Your task to perform on an android device: add a label to a message in the gmail app Image 0: 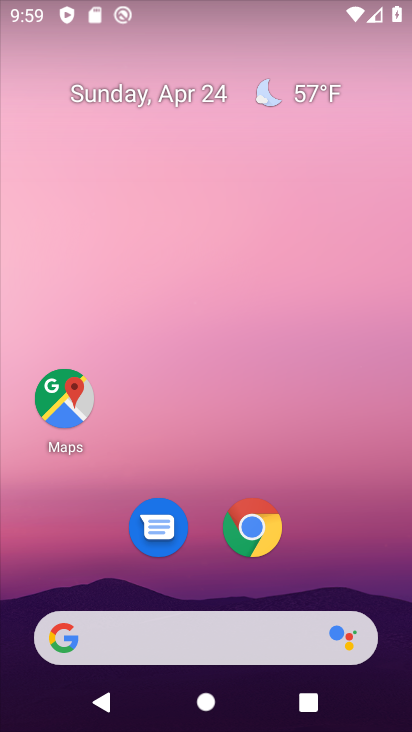
Step 0: click (124, 143)
Your task to perform on an android device: add a label to a message in the gmail app Image 1: 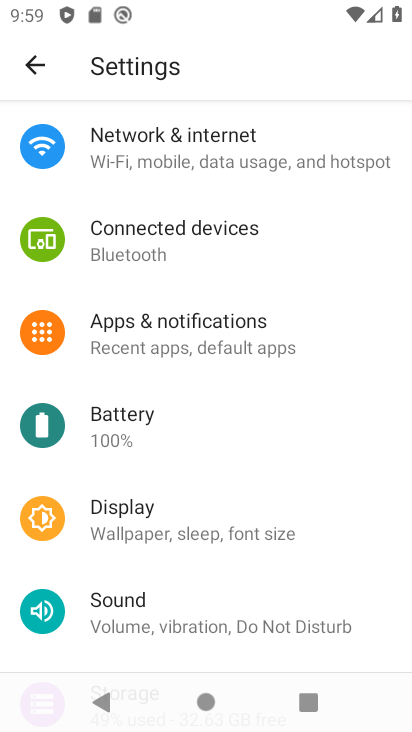
Step 1: click (28, 67)
Your task to perform on an android device: add a label to a message in the gmail app Image 2: 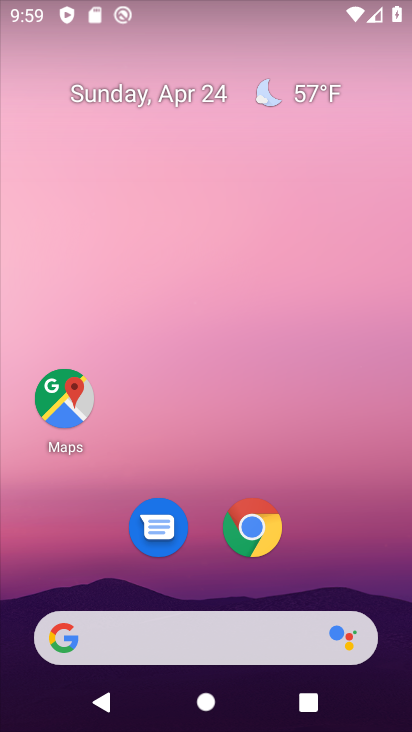
Step 2: drag from (219, 625) to (176, 96)
Your task to perform on an android device: add a label to a message in the gmail app Image 3: 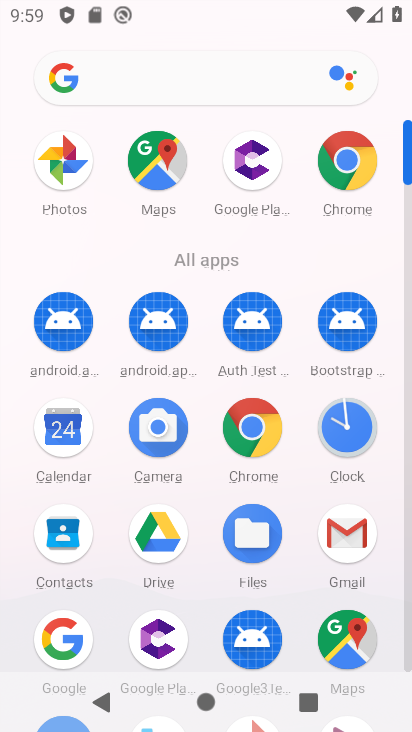
Step 3: click (341, 536)
Your task to perform on an android device: add a label to a message in the gmail app Image 4: 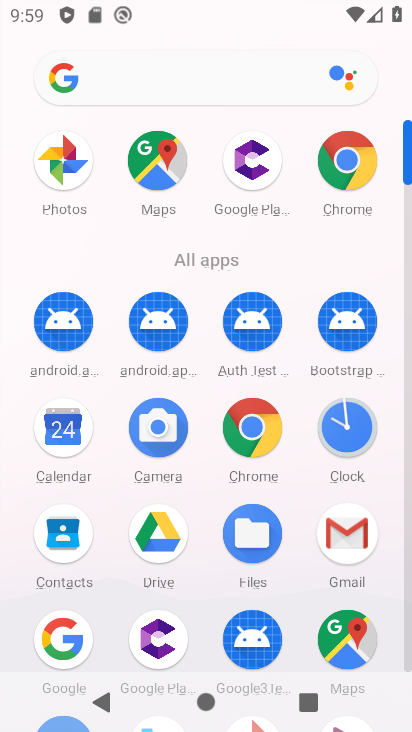
Step 4: click (341, 536)
Your task to perform on an android device: add a label to a message in the gmail app Image 5: 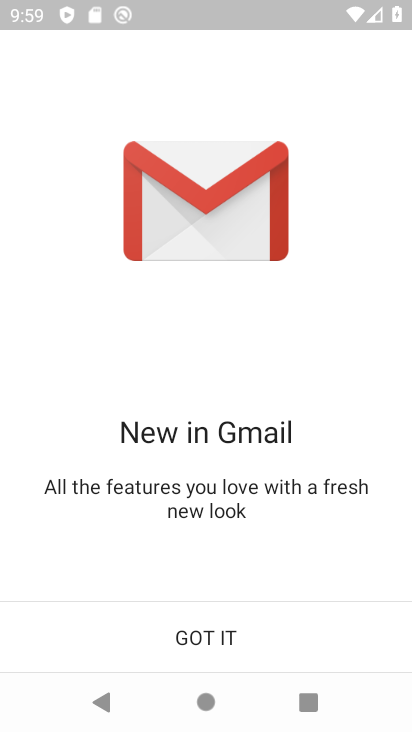
Step 5: click (212, 635)
Your task to perform on an android device: add a label to a message in the gmail app Image 6: 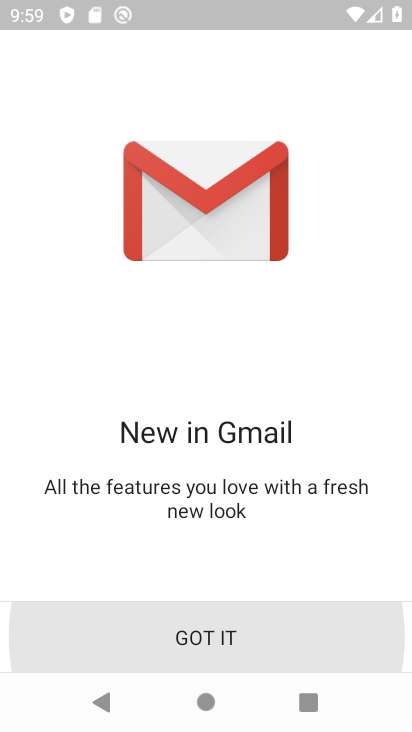
Step 6: click (215, 638)
Your task to perform on an android device: add a label to a message in the gmail app Image 7: 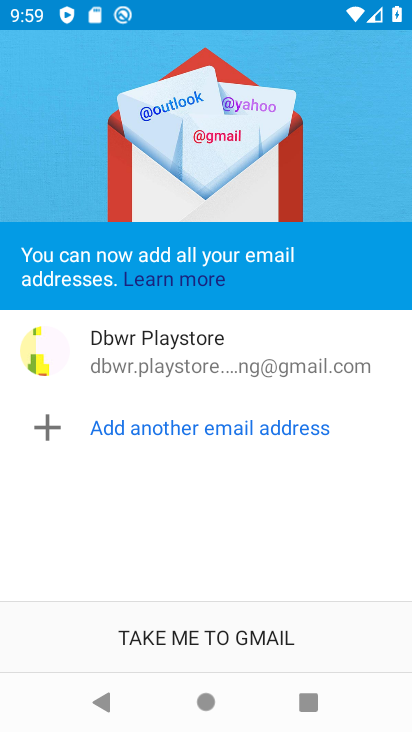
Step 7: click (204, 629)
Your task to perform on an android device: add a label to a message in the gmail app Image 8: 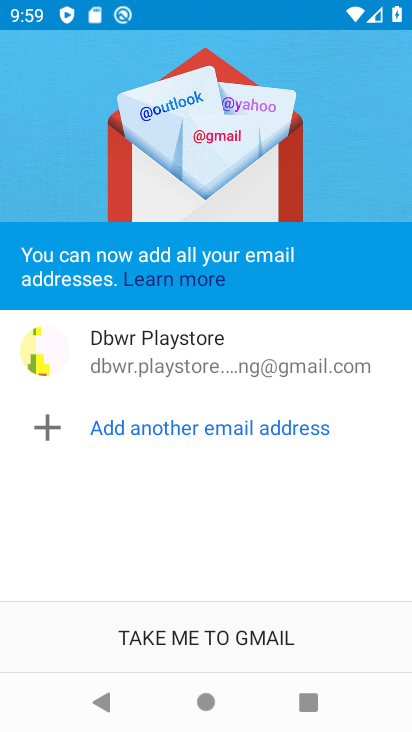
Step 8: click (206, 629)
Your task to perform on an android device: add a label to a message in the gmail app Image 9: 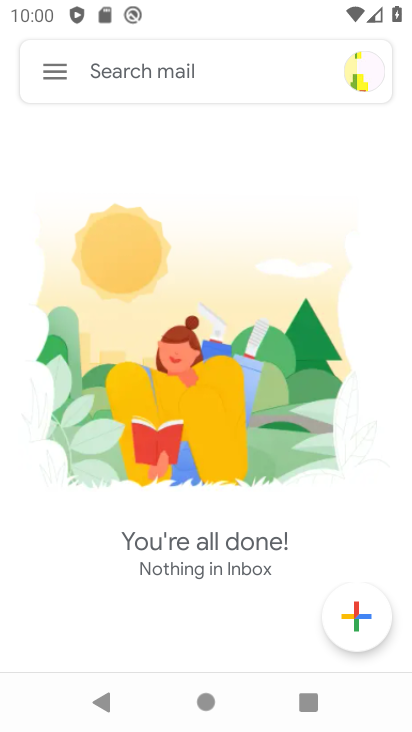
Step 9: click (61, 74)
Your task to perform on an android device: add a label to a message in the gmail app Image 10: 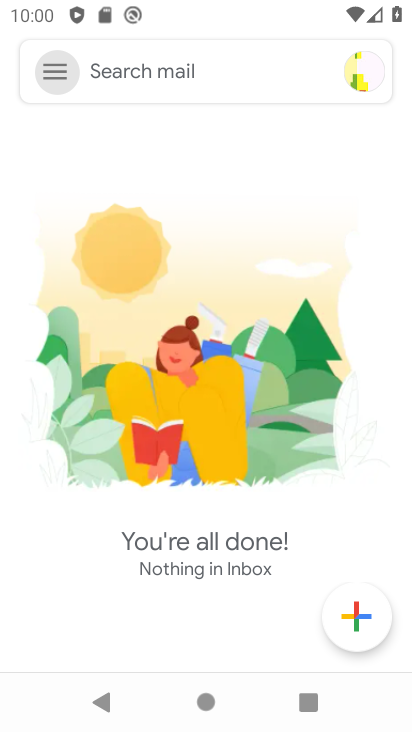
Step 10: click (52, 67)
Your task to perform on an android device: add a label to a message in the gmail app Image 11: 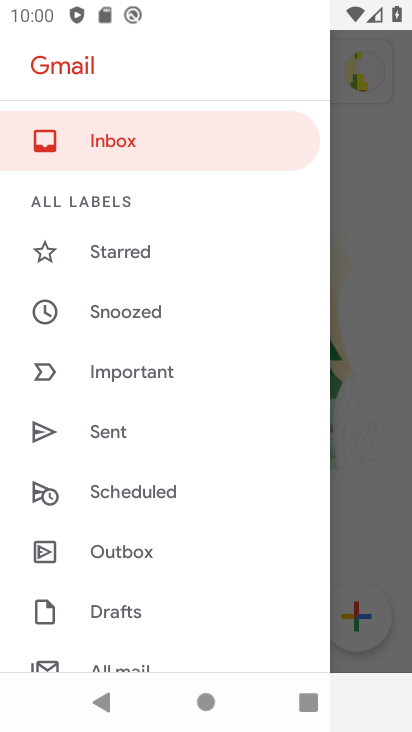
Step 11: drag from (177, 477) to (138, 145)
Your task to perform on an android device: add a label to a message in the gmail app Image 12: 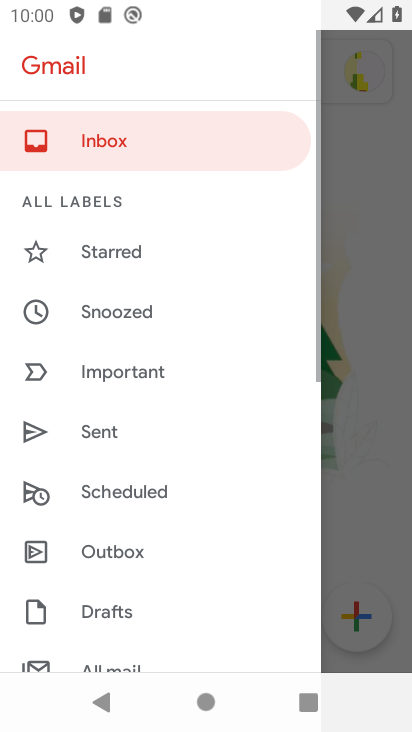
Step 12: drag from (133, 500) to (146, 6)
Your task to perform on an android device: add a label to a message in the gmail app Image 13: 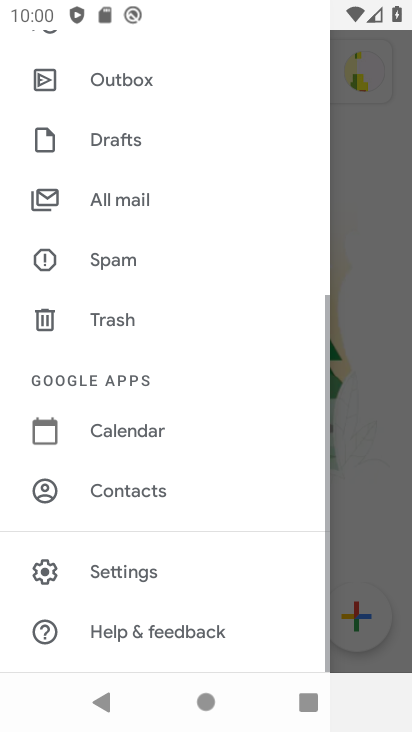
Step 13: drag from (178, 615) to (197, 48)
Your task to perform on an android device: add a label to a message in the gmail app Image 14: 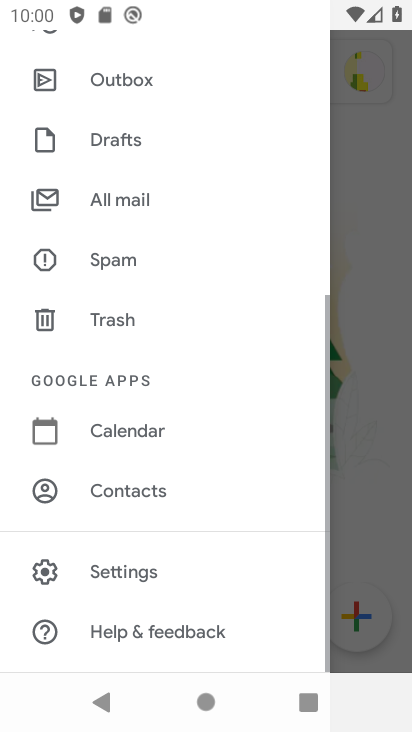
Step 14: click (117, 200)
Your task to perform on an android device: add a label to a message in the gmail app Image 15: 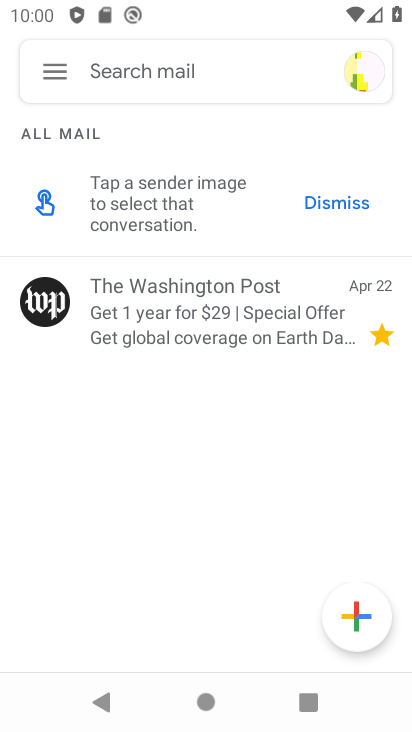
Step 15: click (287, 328)
Your task to perform on an android device: add a label to a message in the gmail app Image 16: 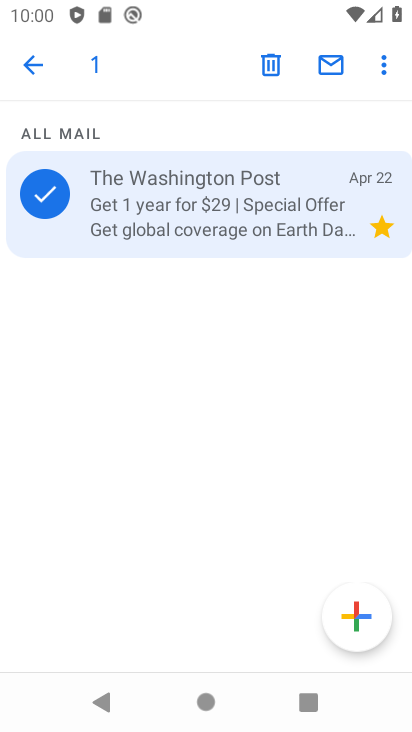
Step 16: click (380, 55)
Your task to perform on an android device: add a label to a message in the gmail app Image 17: 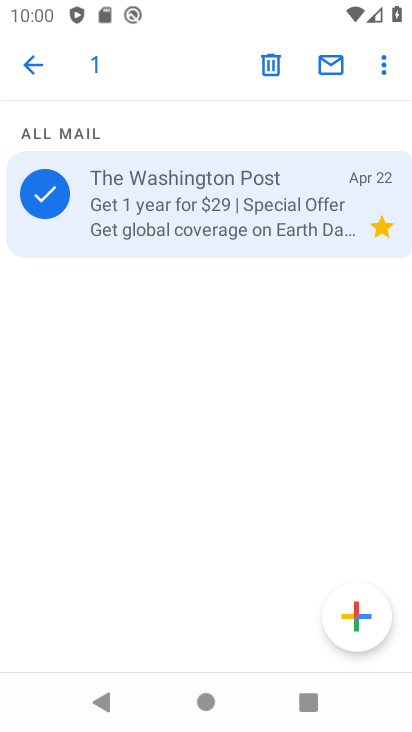
Step 17: click (378, 63)
Your task to perform on an android device: add a label to a message in the gmail app Image 18: 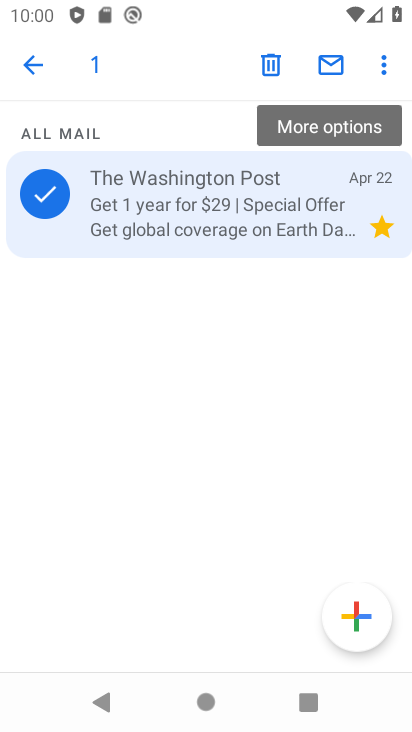
Step 18: click (381, 67)
Your task to perform on an android device: add a label to a message in the gmail app Image 19: 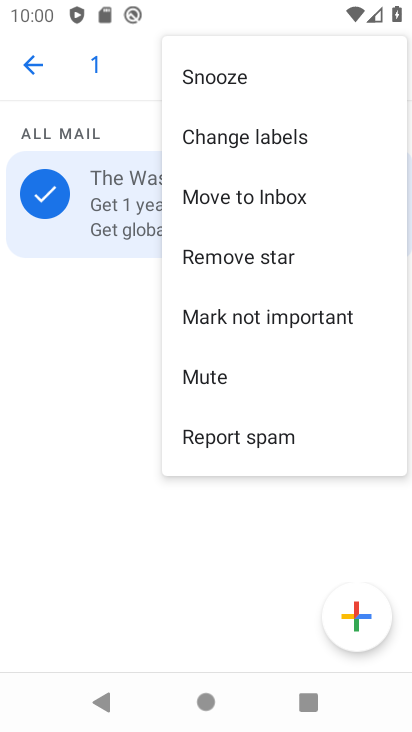
Step 19: click (235, 127)
Your task to perform on an android device: add a label to a message in the gmail app Image 20: 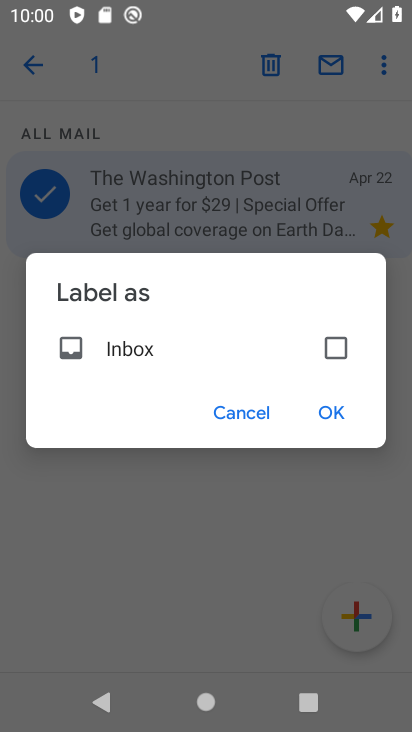
Step 20: click (330, 348)
Your task to perform on an android device: add a label to a message in the gmail app Image 21: 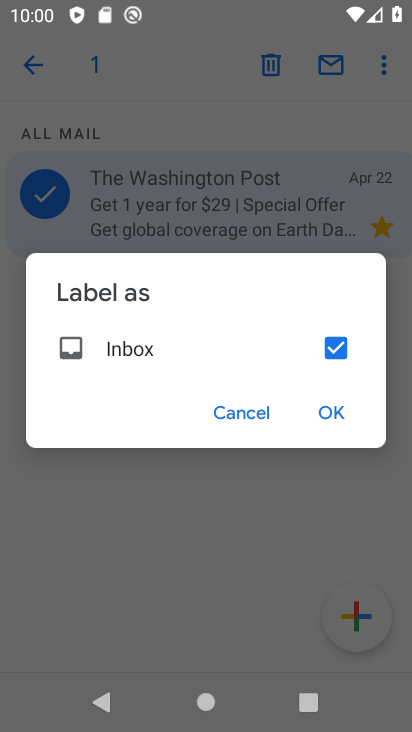
Step 21: click (330, 413)
Your task to perform on an android device: add a label to a message in the gmail app Image 22: 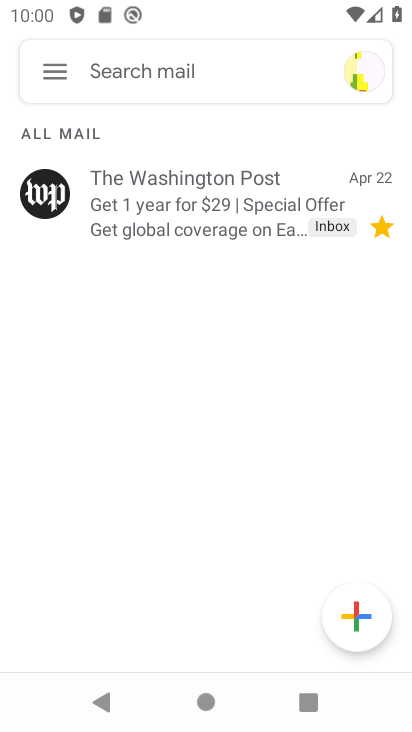
Step 22: task complete